Your task to perform on an android device: turn on data saver in the chrome app Image 0: 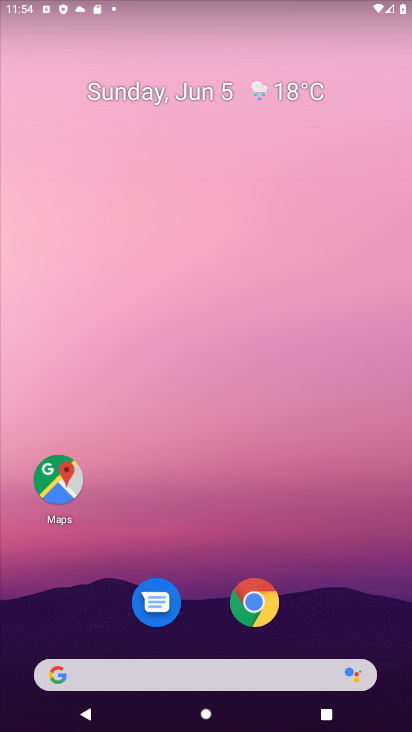
Step 0: task complete